Your task to perform on an android device: Open accessibility settings Image 0: 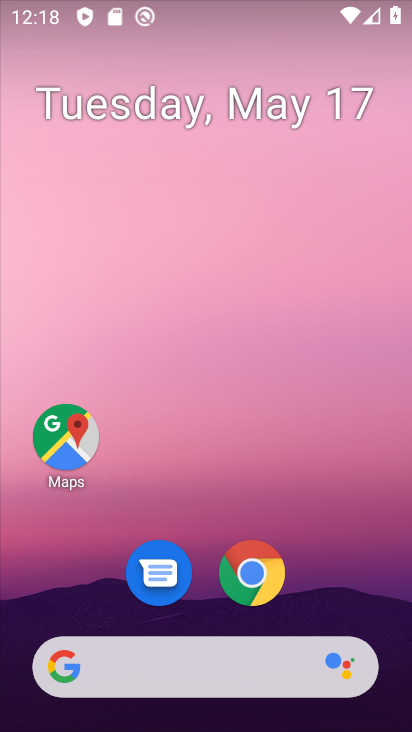
Step 0: press home button
Your task to perform on an android device: Open accessibility settings Image 1: 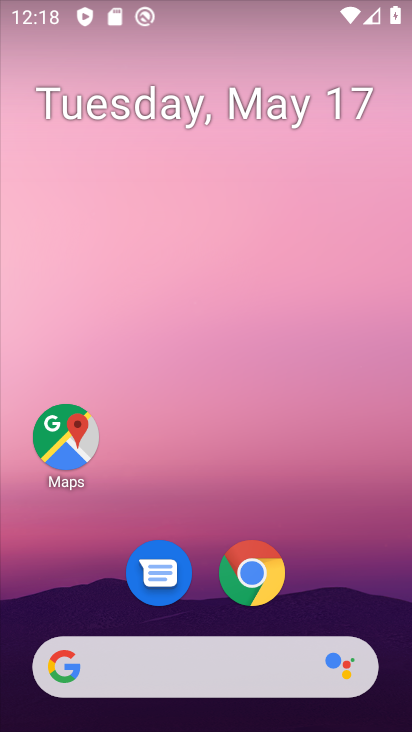
Step 1: drag from (214, 579) to (305, 214)
Your task to perform on an android device: Open accessibility settings Image 2: 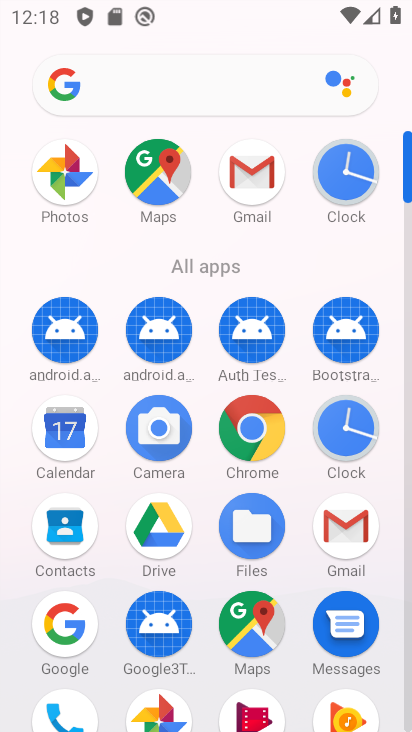
Step 2: drag from (208, 583) to (270, 147)
Your task to perform on an android device: Open accessibility settings Image 3: 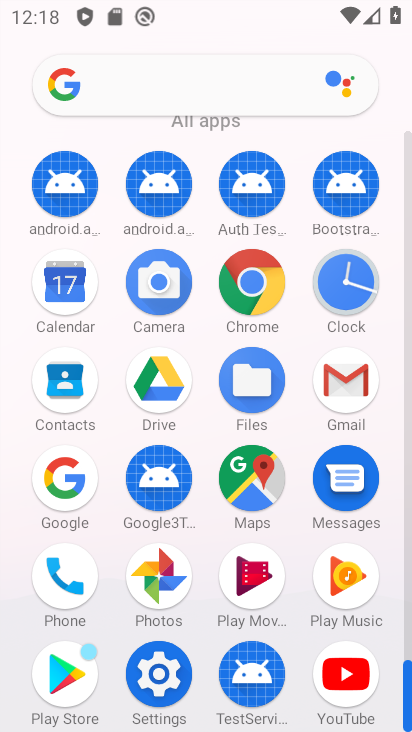
Step 3: click (158, 671)
Your task to perform on an android device: Open accessibility settings Image 4: 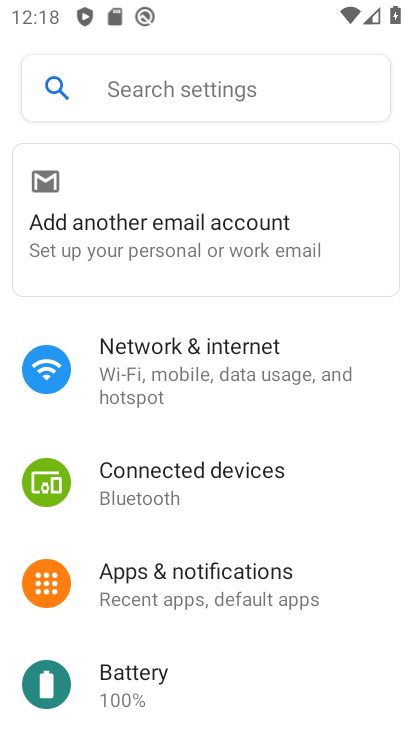
Step 4: drag from (203, 671) to (241, 159)
Your task to perform on an android device: Open accessibility settings Image 5: 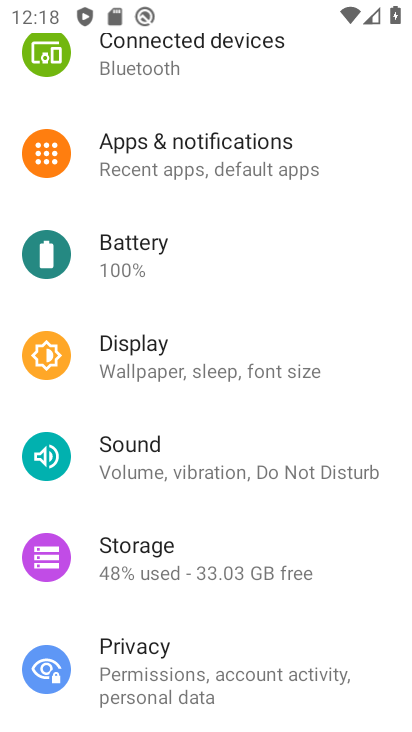
Step 5: drag from (200, 685) to (250, 2)
Your task to perform on an android device: Open accessibility settings Image 6: 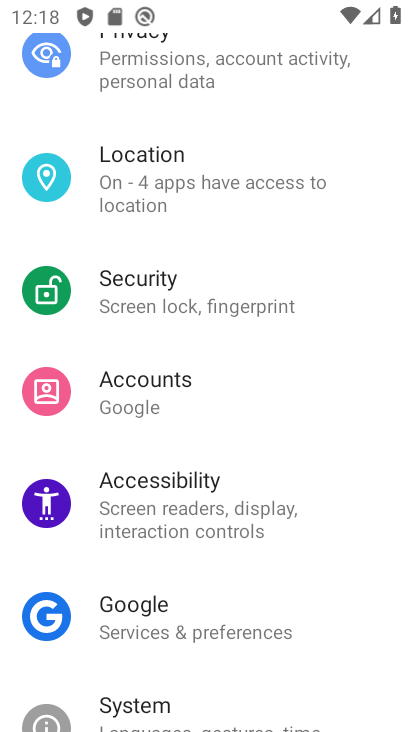
Step 6: click (173, 492)
Your task to perform on an android device: Open accessibility settings Image 7: 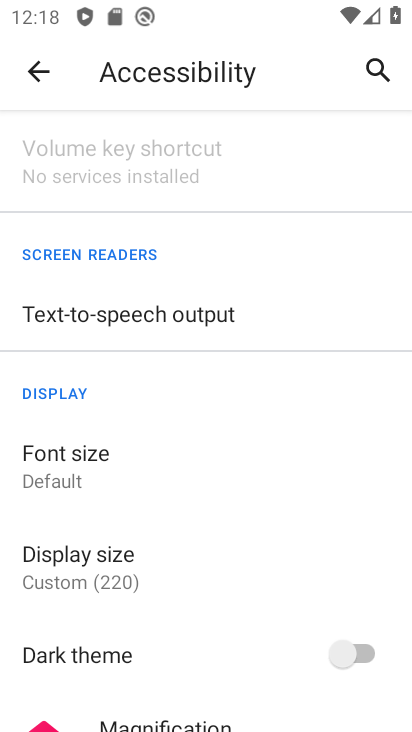
Step 7: task complete